Your task to perform on an android device: install app "Upside-Cash back on gas & food" Image 0: 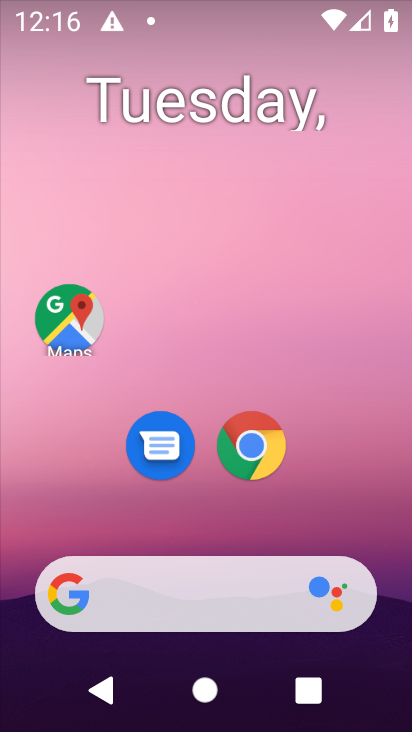
Step 0: drag from (368, 535) to (332, 97)
Your task to perform on an android device: install app "Upside-Cash back on gas & food" Image 1: 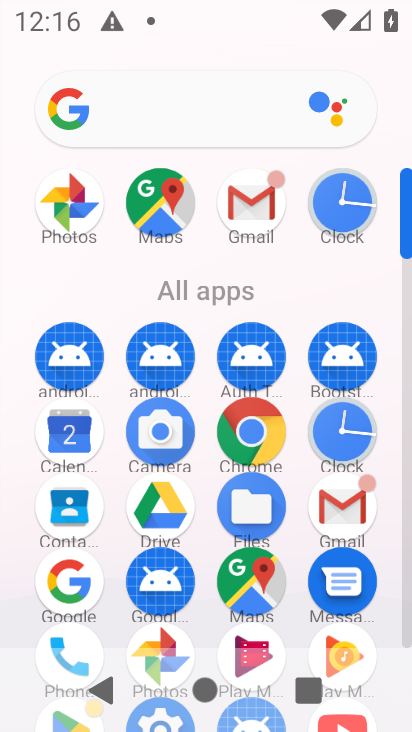
Step 1: drag from (210, 310) to (157, 217)
Your task to perform on an android device: install app "Upside-Cash back on gas & food" Image 2: 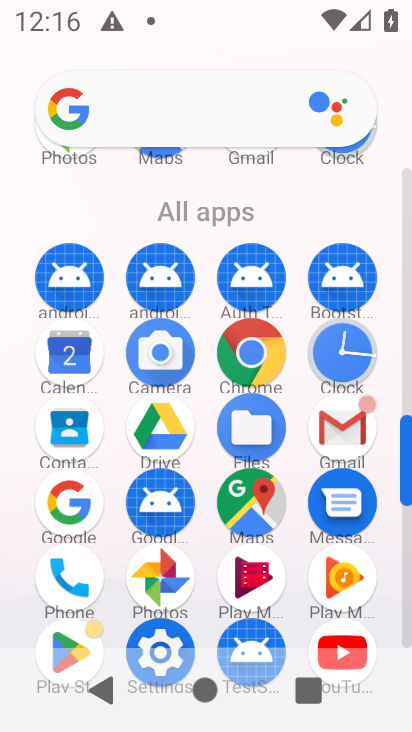
Step 2: click (55, 632)
Your task to perform on an android device: install app "Upside-Cash back on gas & food" Image 3: 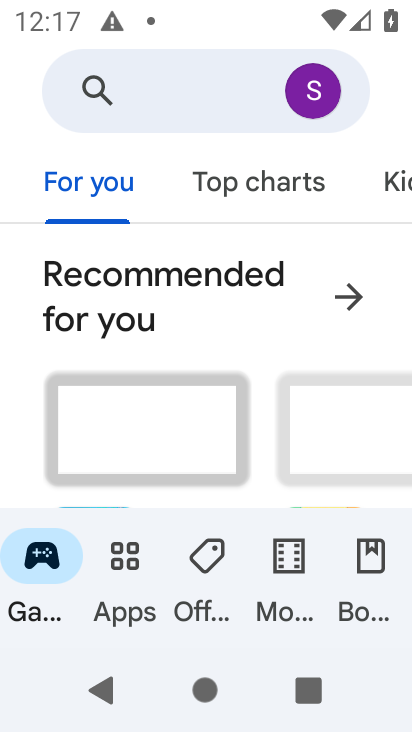
Step 3: click (195, 99)
Your task to perform on an android device: install app "Upside-Cash back on gas & food" Image 4: 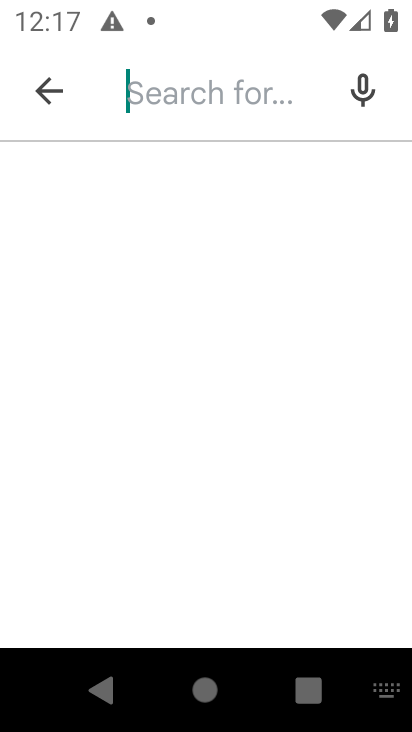
Step 4: type "upside-cash back"
Your task to perform on an android device: install app "Upside-Cash back on gas & food" Image 5: 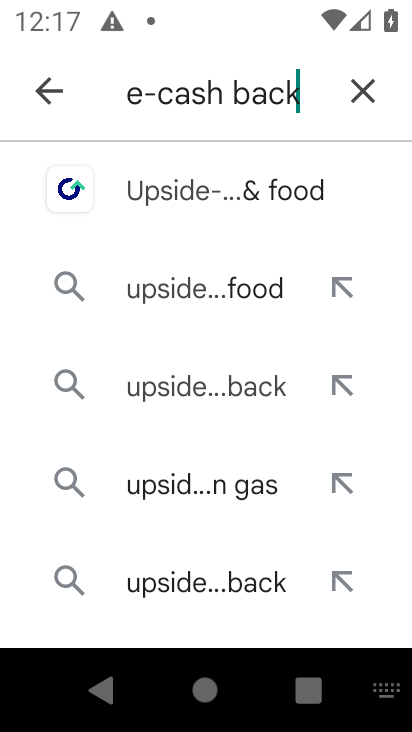
Step 5: click (202, 204)
Your task to perform on an android device: install app "Upside-Cash back on gas & food" Image 6: 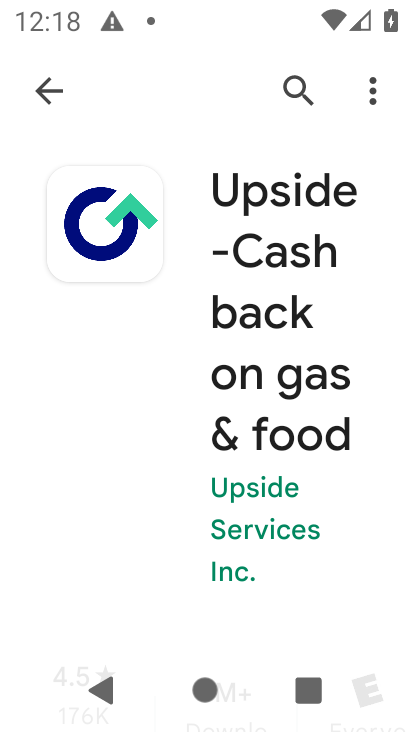
Step 6: drag from (364, 479) to (311, 285)
Your task to perform on an android device: install app "Upside-Cash back on gas & food" Image 7: 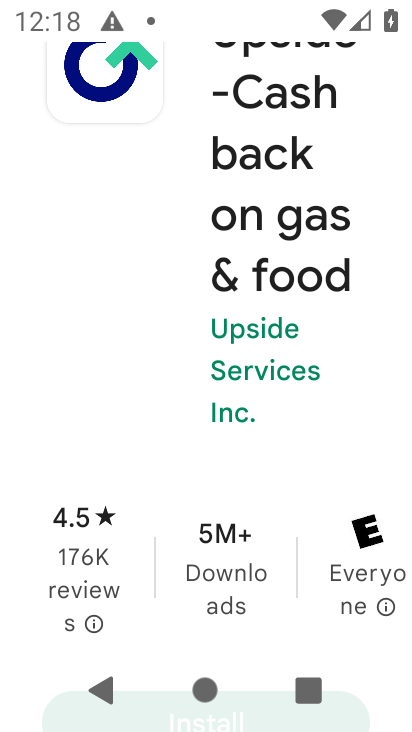
Step 7: drag from (392, 475) to (254, 183)
Your task to perform on an android device: install app "Upside-Cash back on gas & food" Image 8: 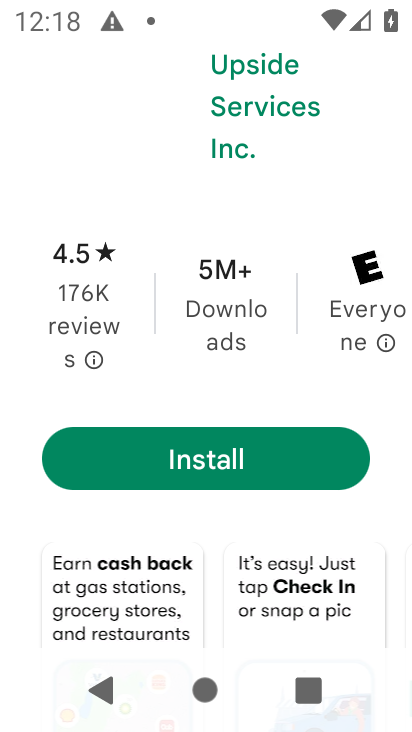
Step 8: click (286, 454)
Your task to perform on an android device: install app "Upside-Cash back on gas & food" Image 9: 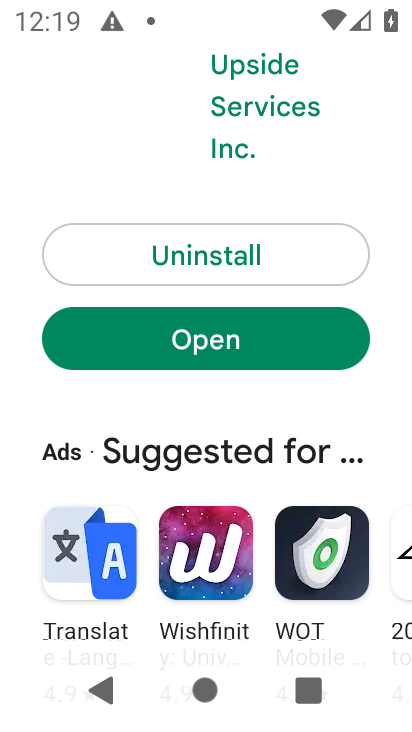
Step 9: task complete